Your task to perform on an android device: change the clock style Image 0: 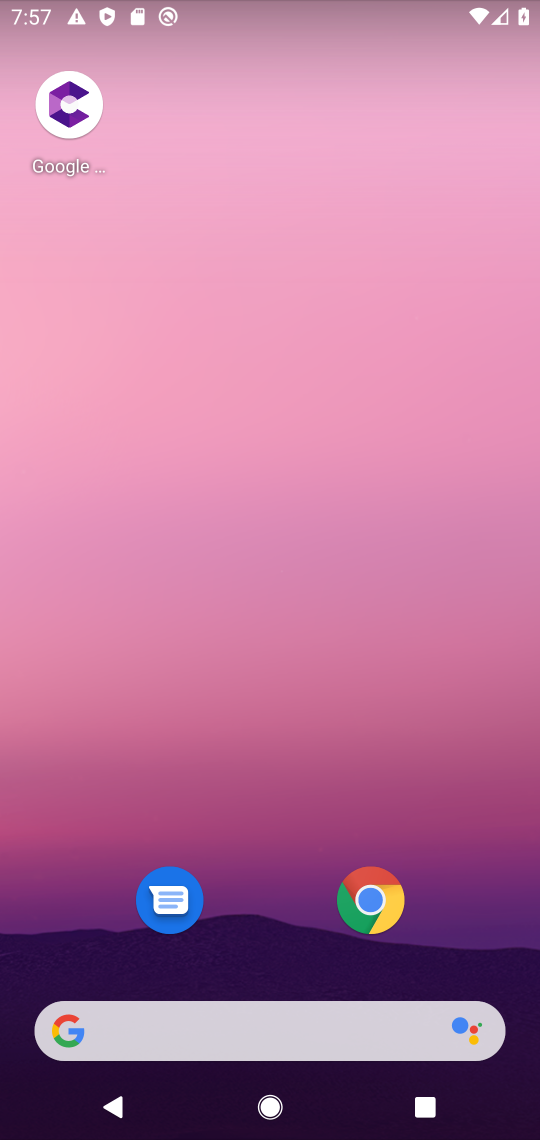
Step 0: click (198, 225)
Your task to perform on an android device: change the clock style Image 1: 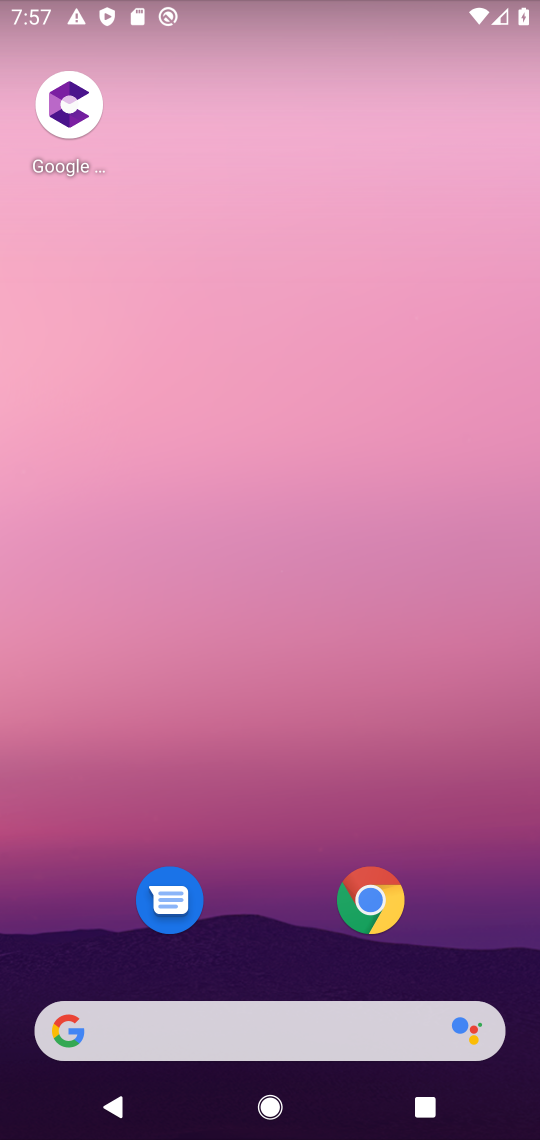
Step 1: click (366, 221)
Your task to perform on an android device: change the clock style Image 2: 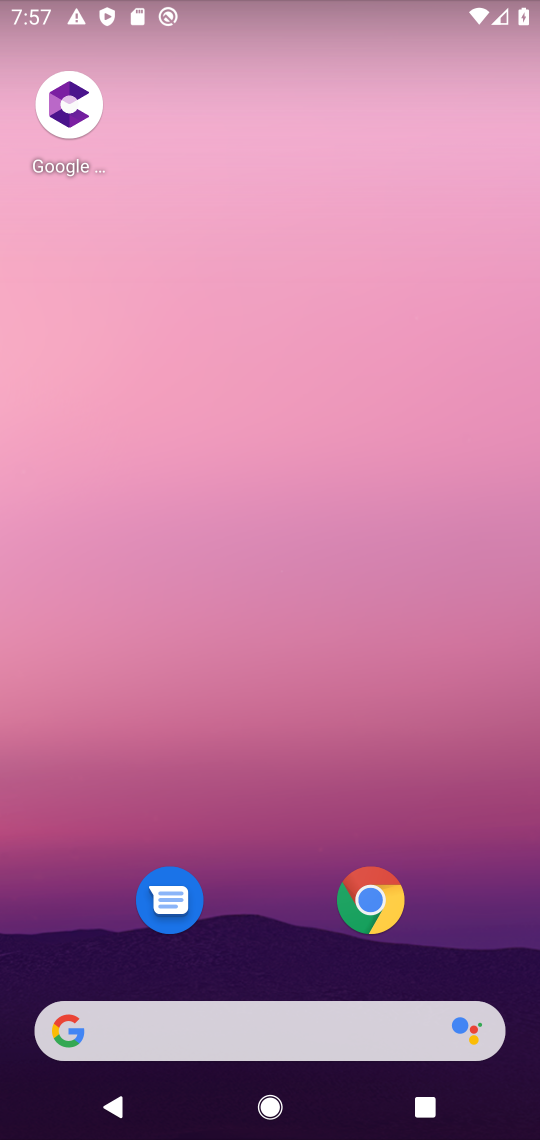
Step 2: drag from (242, 598) to (232, 231)
Your task to perform on an android device: change the clock style Image 3: 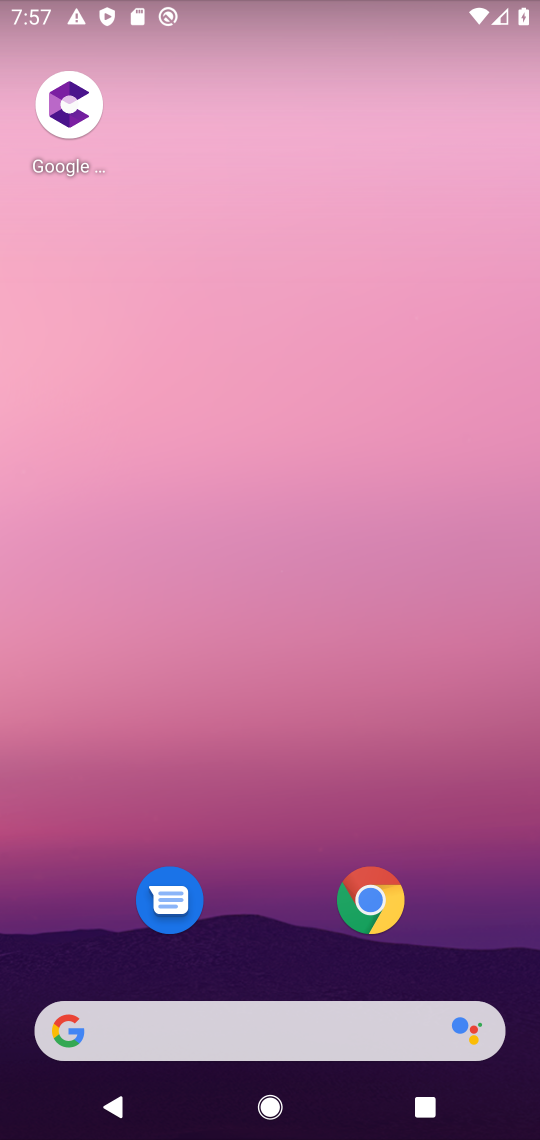
Step 3: drag from (251, 624) to (374, 80)
Your task to perform on an android device: change the clock style Image 4: 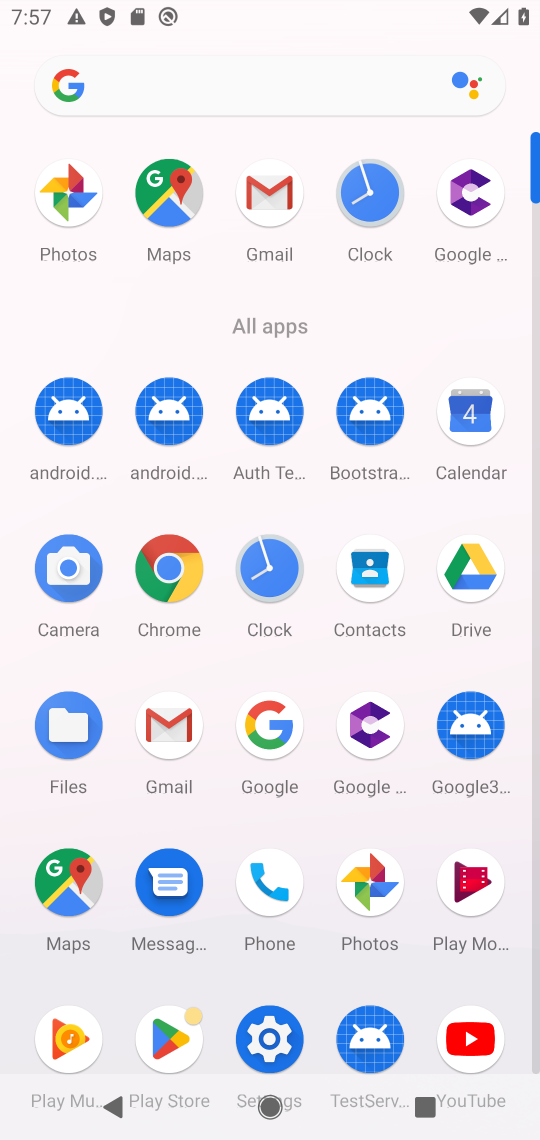
Step 4: click (266, 558)
Your task to perform on an android device: change the clock style Image 5: 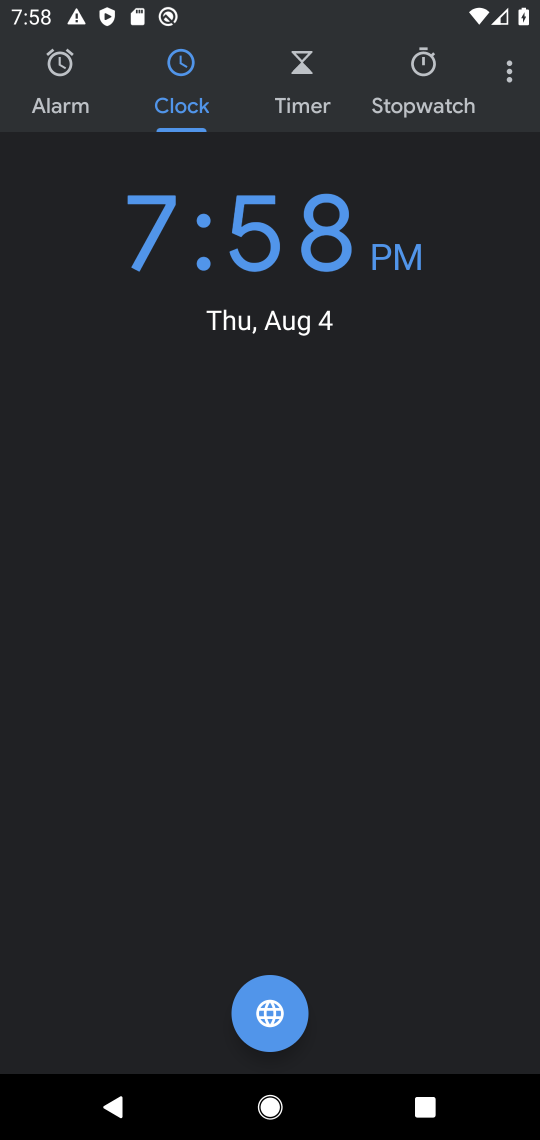
Step 5: click (511, 80)
Your task to perform on an android device: change the clock style Image 6: 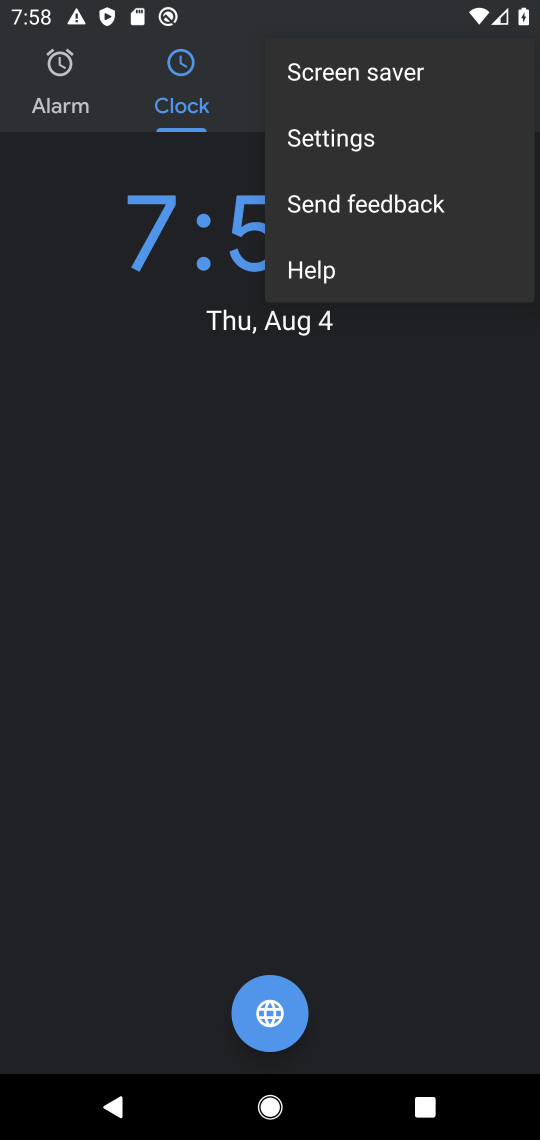
Step 6: click (330, 149)
Your task to perform on an android device: change the clock style Image 7: 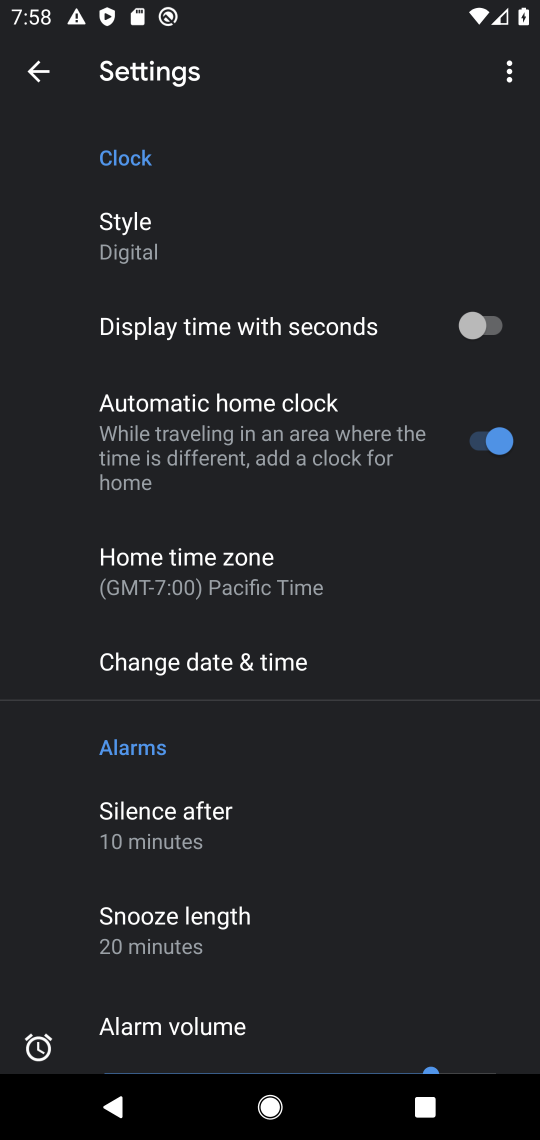
Step 7: click (144, 236)
Your task to perform on an android device: change the clock style Image 8: 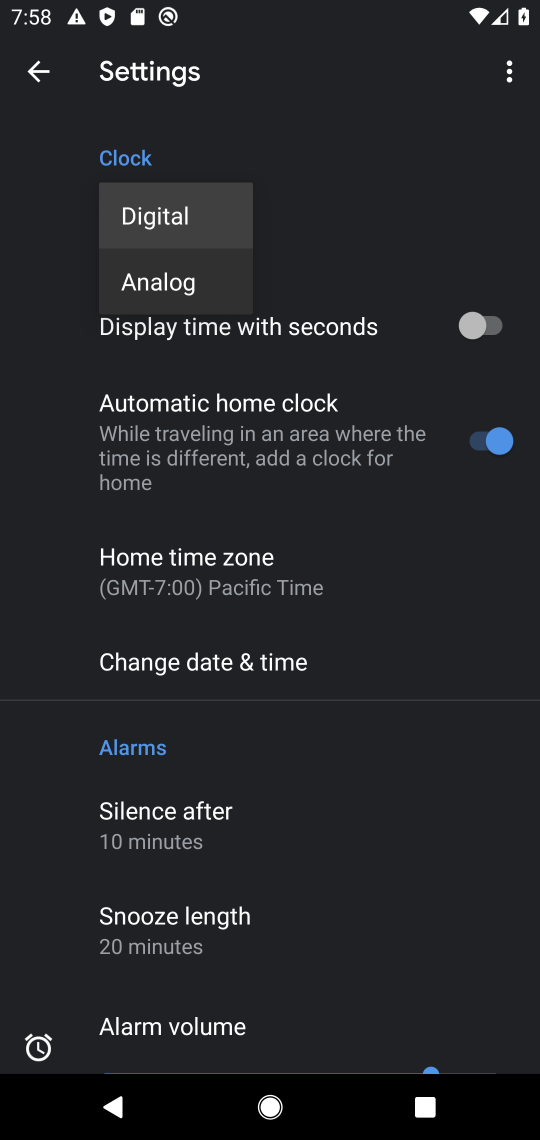
Step 8: click (144, 281)
Your task to perform on an android device: change the clock style Image 9: 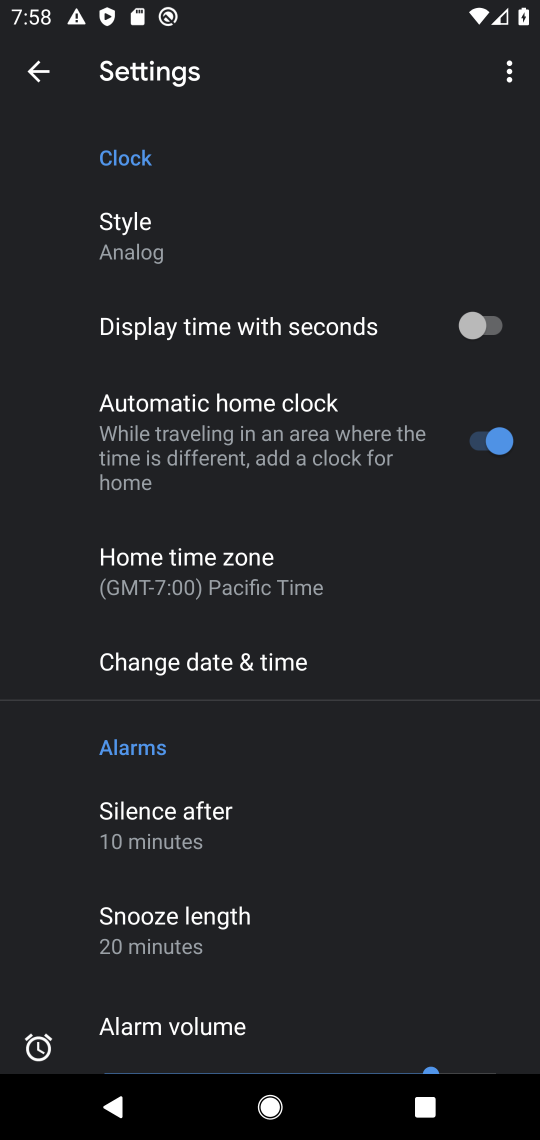
Step 9: task complete